Your task to perform on an android device: Open wifi settings Image 0: 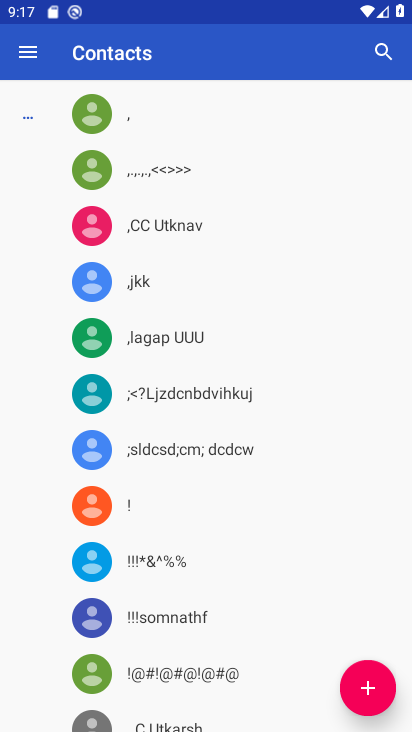
Step 0: press home button
Your task to perform on an android device: Open wifi settings Image 1: 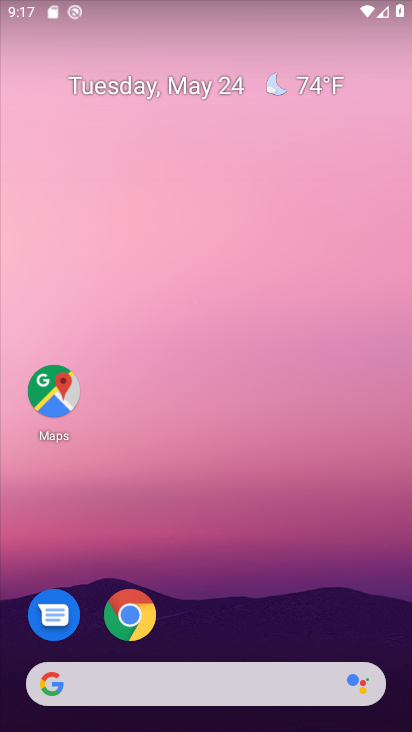
Step 1: drag from (241, 643) to (353, 170)
Your task to perform on an android device: Open wifi settings Image 2: 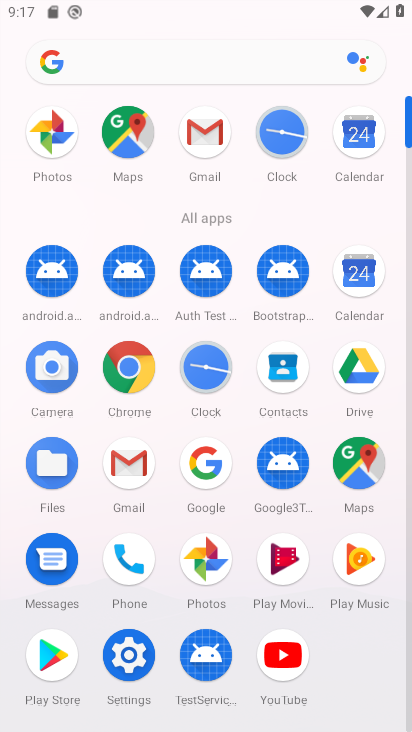
Step 2: click (140, 653)
Your task to perform on an android device: Open wifi settings Image 3: 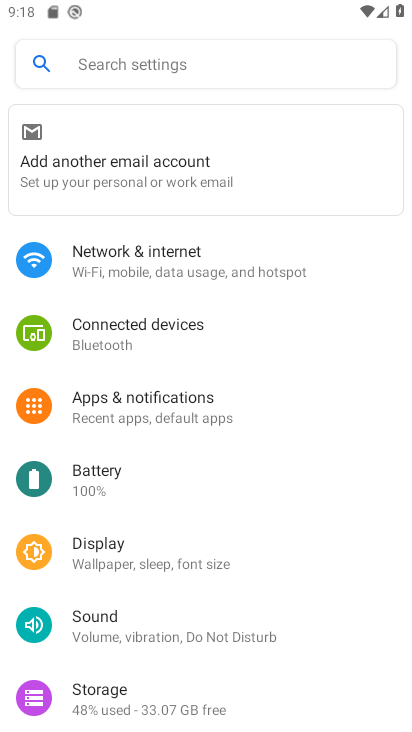
Step 3: click (193, 255)
Your task to perform on an android device: Open wifi settings Image 4: 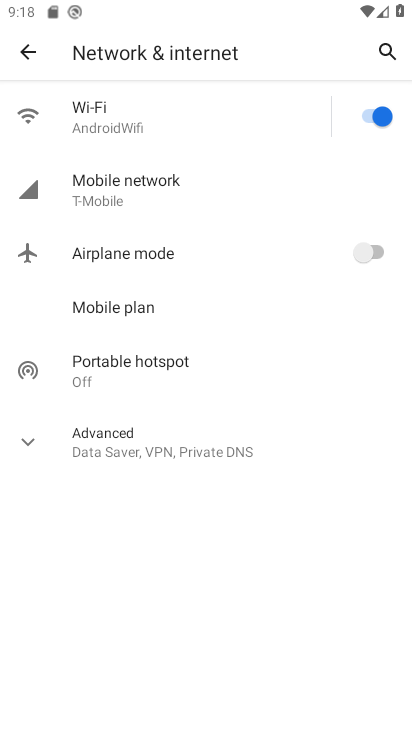
Step 4: click (150, 114)
Your task to perform on an android device: Open wifi settings Image 5: 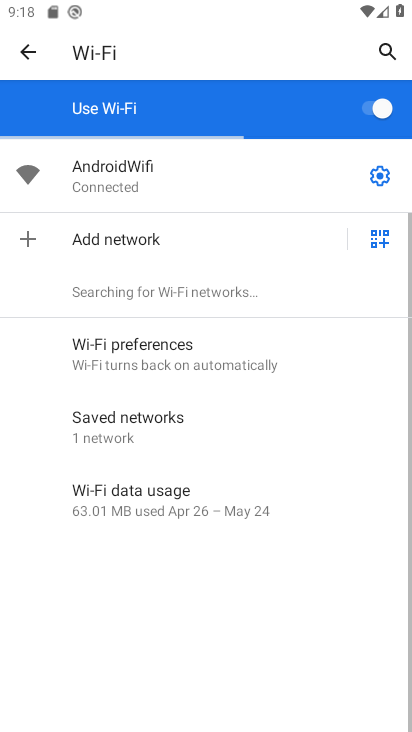
Step 5: task complete